Your task to perform on an android device: allow notifications from all sites in the chrome app Image 0: 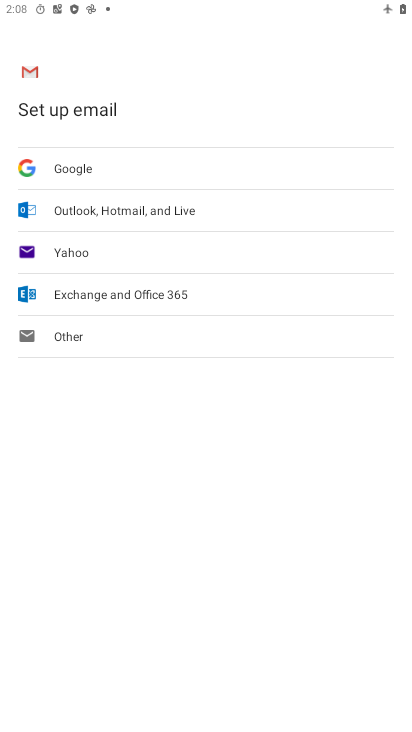
Step 0: press home button
Your task to perform on an android device: allow notifications from all sites in the chrome app Image 1: 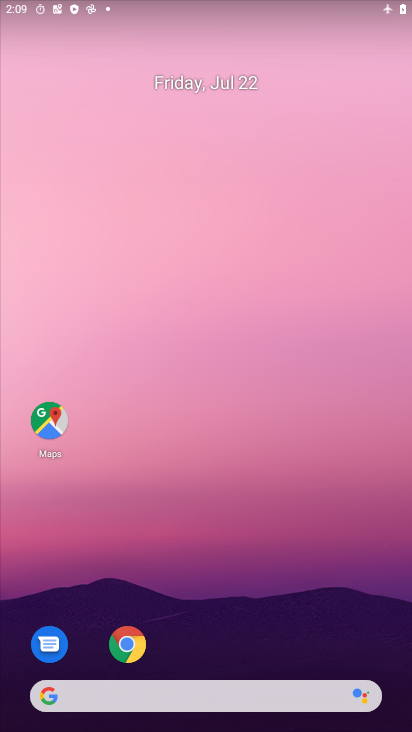
Step 1: drag from (255, 652) to (285, 305)
Your task to perform on an android device: allow notifications from all sites in the chrome app Image 2: 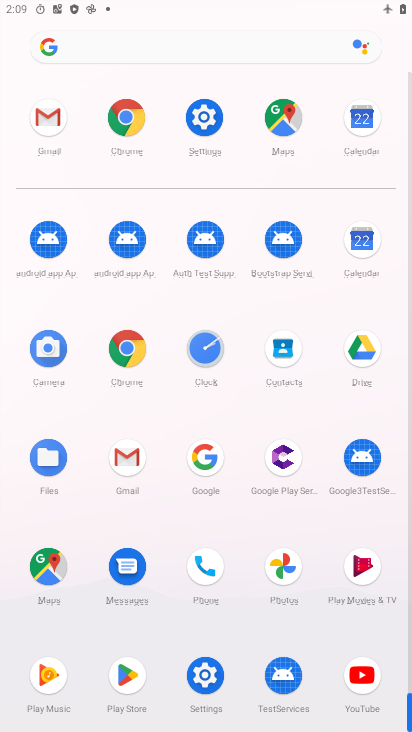
Step 2: click (124, 120)
Your task to perform on an android device: allow notifications from all sites in the chrome app Image 3: 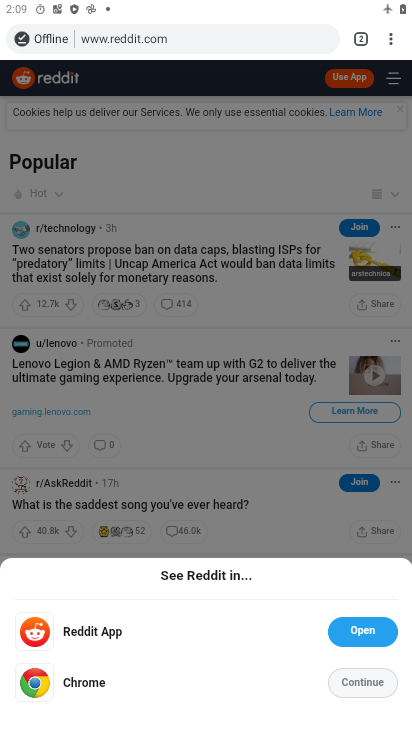
Step 3: click (389, 35)
Your task to perform on an android device: allow notifications from all sites in the chrome app Image 4: 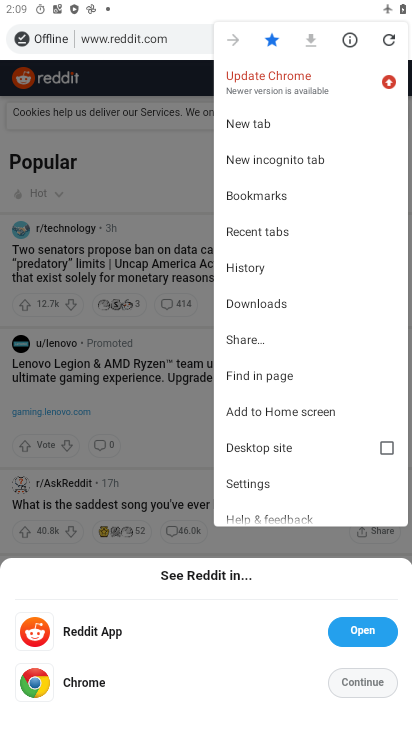
Step 4: click (254, 485)
Your task to perform on an android device: allow notifications from all sites in the chrome app Image 5: 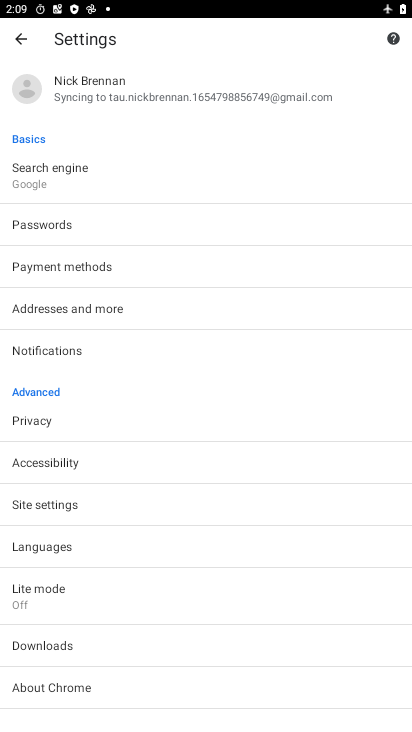
Step 5: click (73, 355)
Your task to perform on an android device: allow notifications from all sites in the chrome app Image 6: 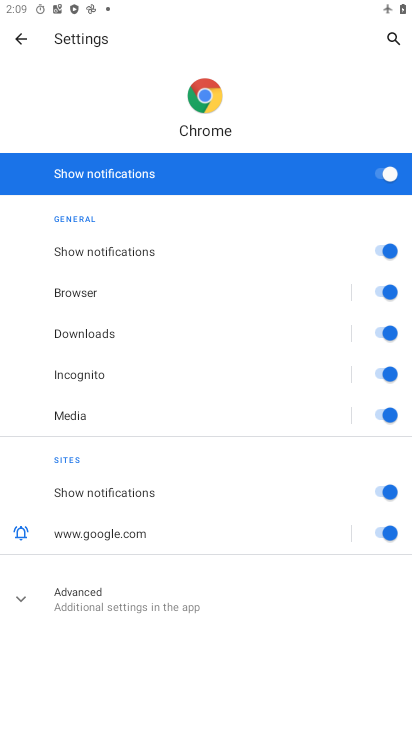
Step 6: click (101, 552)
Your task to perform on an android device: allow notifications from all sites in the chrome app Image 7: 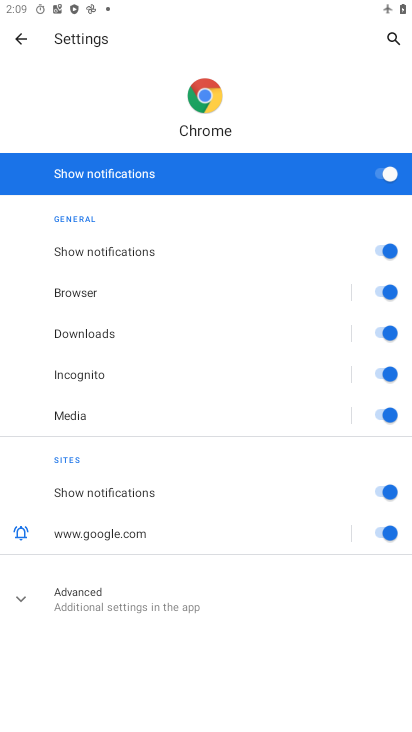
Step 7: drag from (102, 552) to (110, 372)
Your task to perform on an android device: allow notifications from all sites in the chrome app Image 8: 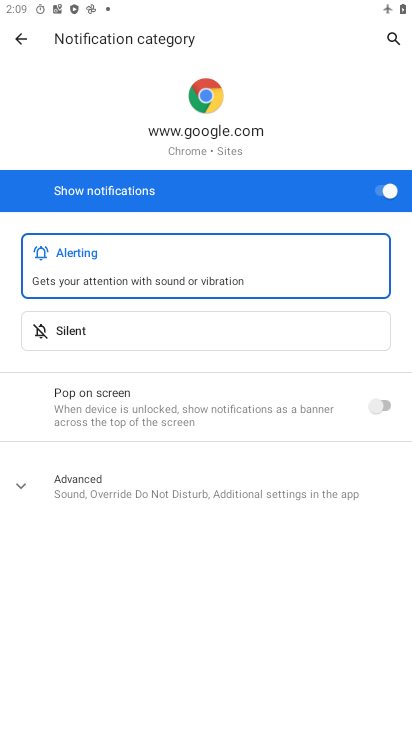
Step 8: click (20, 46)
Your task to perform on an android device: allow notifications from all sites in the chrome app Image 9: 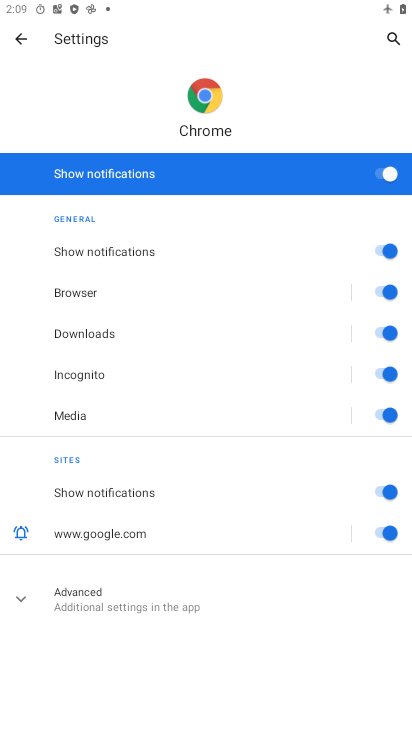
Step 9: task complete